Your task to perform on an android device: turn off picture-in-picture Image 0: 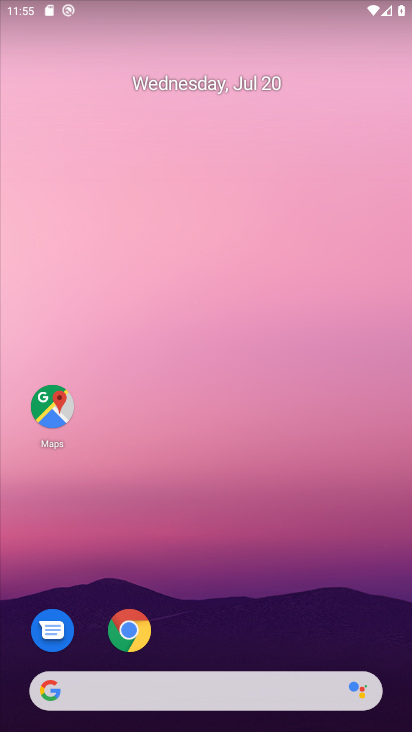
Step 0: drag from (223, 501) to (164, 208)
Your task to perform on an android device: turn off picture-in-picture Image 1: 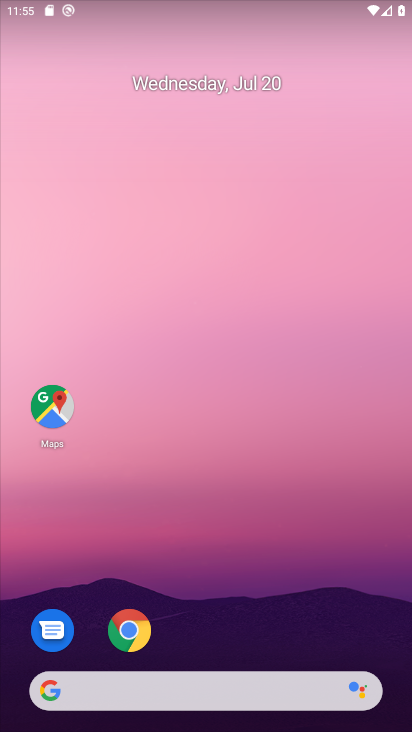
Step 1: drag from (189, 602) to (232, 16)
Your task to perform on an android device: turn off picture-in-picture Image 2: 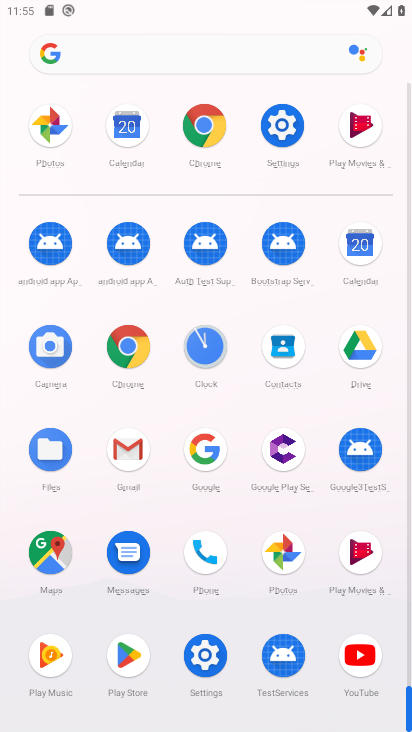
Step 2: click (201, 649)
Your task to perform on an android device: turn off picture-in-picture Image 3: 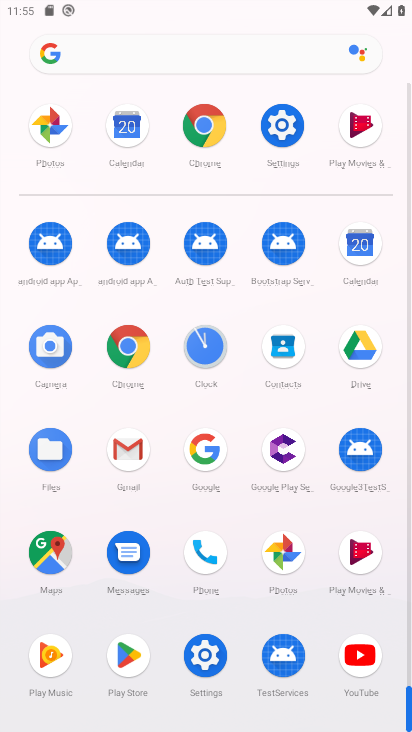
Step 3: click (201, 649)
Your task to perform on an android device: turn off picture-in-picture Image 4: 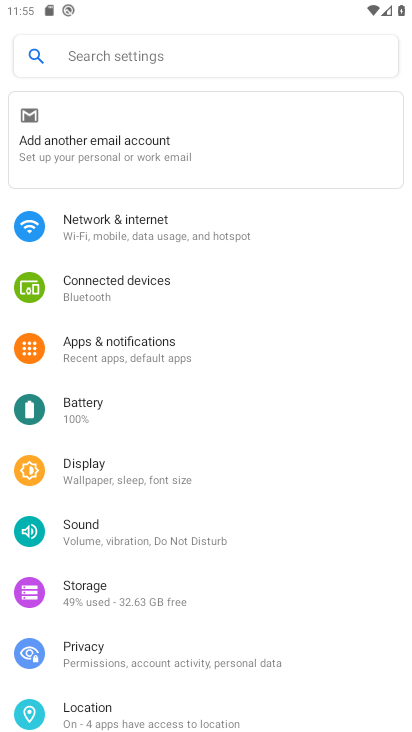
Step 4: click (120, 350)
Your task to perform on an android device: turn off picture-in-picture Image 5: 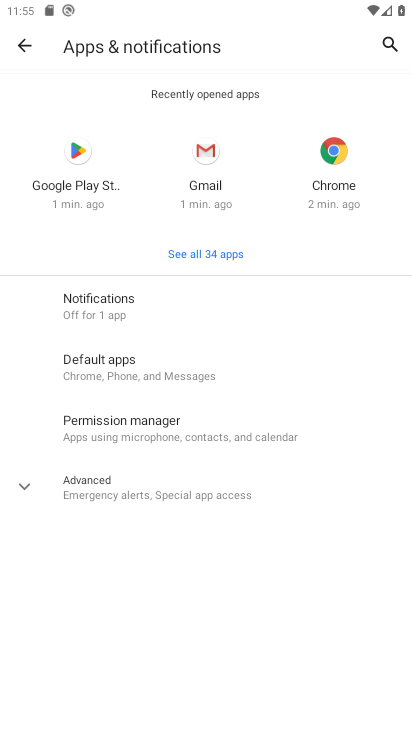
Step 5: click (133, 491)
Your task to perform on an android device: turn off picture-in-picture Image 6: 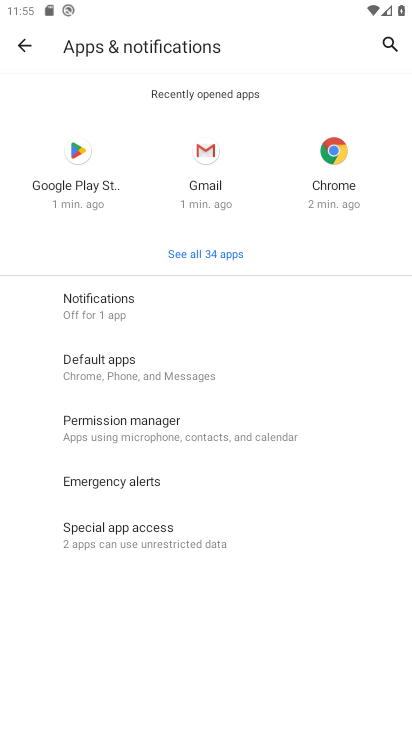
Step 6: click (120, 546)
Your task to perform on an android device: turn off picture-in-picture Image 7: 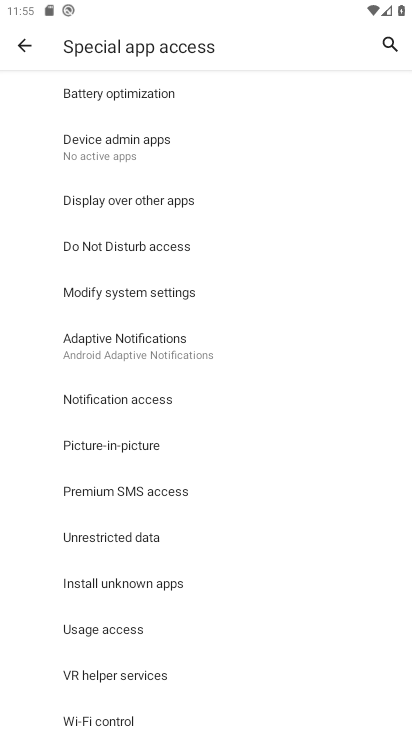
Step 7: click (114, 443)
Your task to perform on an android device: turn off picture-in-picture Image 8: 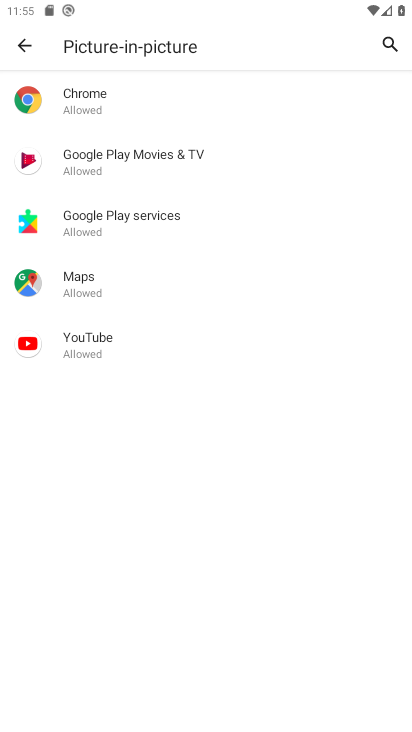
Step 8: drag from (179, 553) to (230, 124)
Your task to perform on an android device: turn off picture-in-picture Image 9: 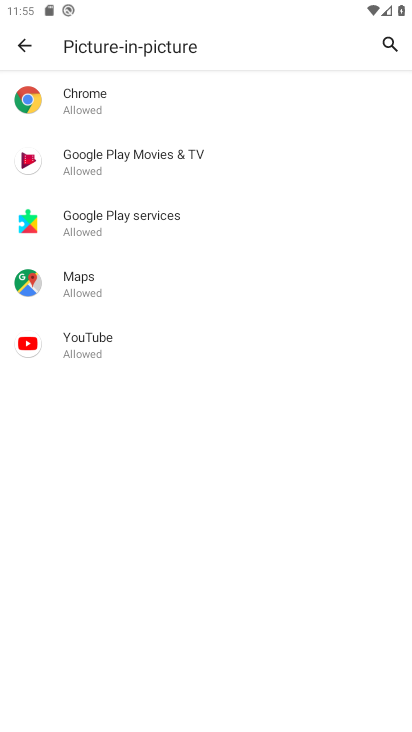
Step 9: drag from (285, 542) to (308, 171)
Your task to perform on an android device: turn off picture-in-picture Image 10: 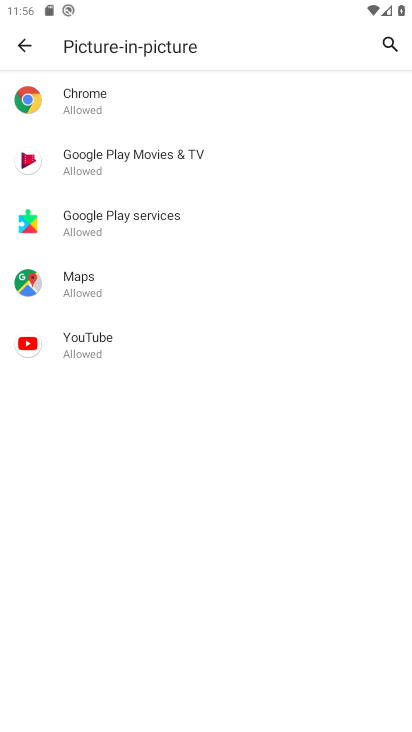
Step 10: click (179, 85)
Your task to perform on an android device: turn off picture-in-picture Image 11: 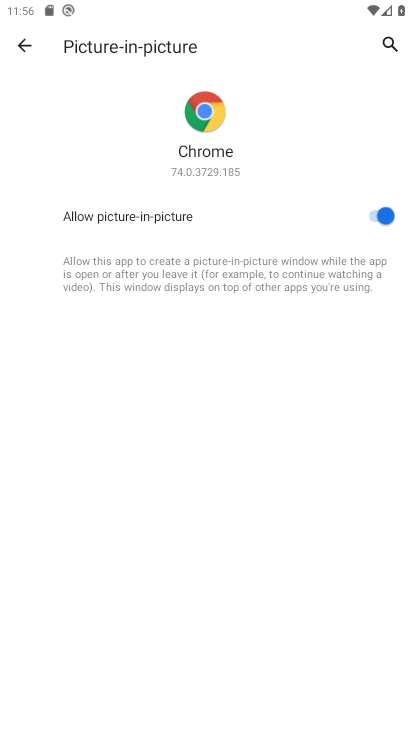
Step 11: click (388, 211)
Your task to perform on an android device: turn off picture-in-picture Image 12: 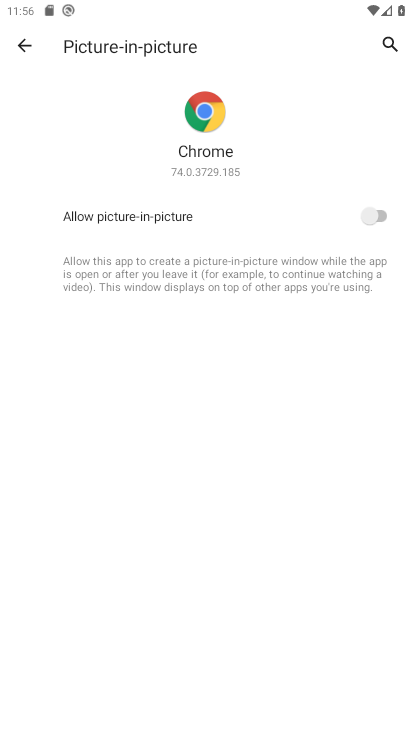
Step 12: task complete